Your task to perform on an android device: change the clock display to digital Image 0: 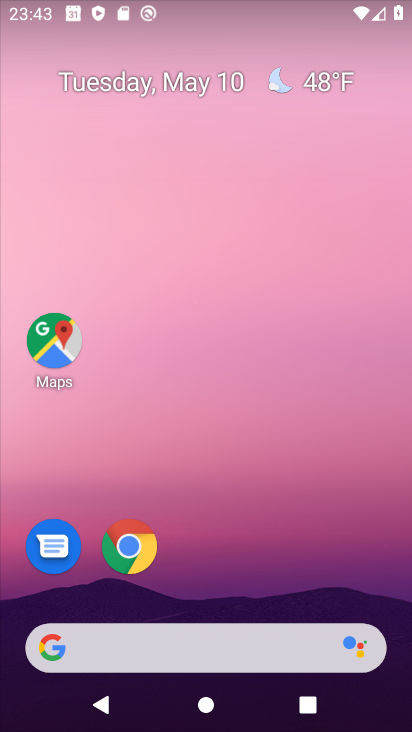
Step 0: drag from (212, 572) to (218, 193)
Your task to perform on an android device: change the clock display to digital Image 1: 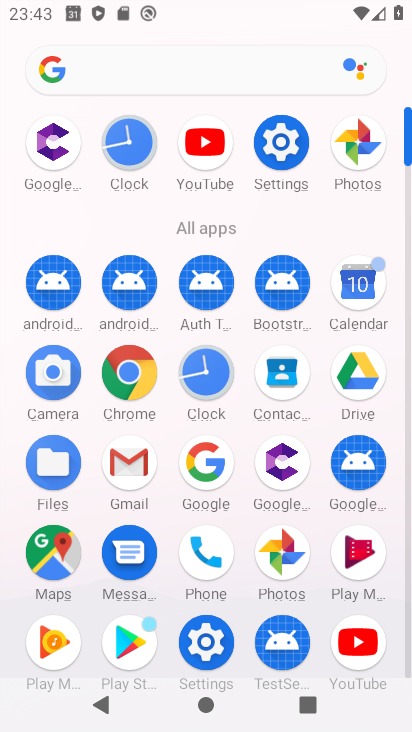
Step 1: click (117, 161)
Your task to perform on an android device: change the clock display to digital Image 2: 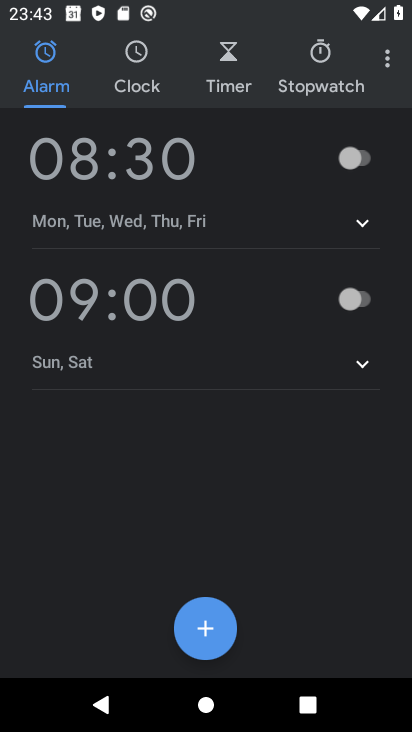
Step 2: click (382, 67)
Your task to perform on an android device: change the clock display to digital Image 3: 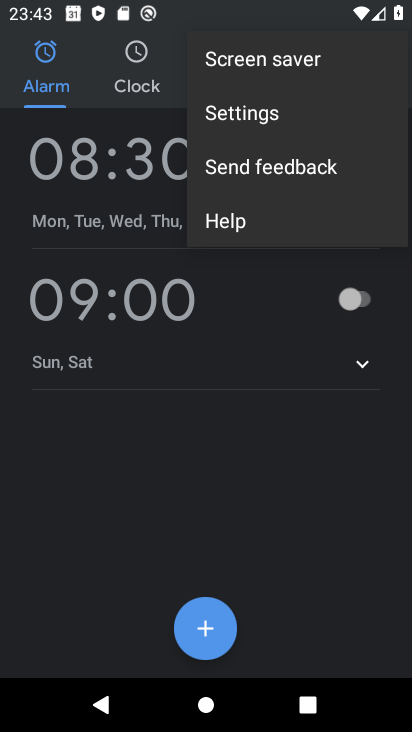
Step 3: click (299, 105)
Your task to perform on an android device: change the clock display to digital Image 4: 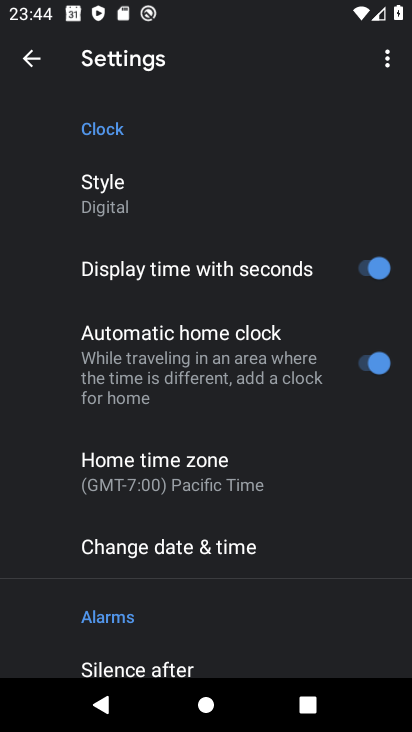
Step 4: click (188, 181)
Your task to perform on an android device: change the clock display to digital Image 5: 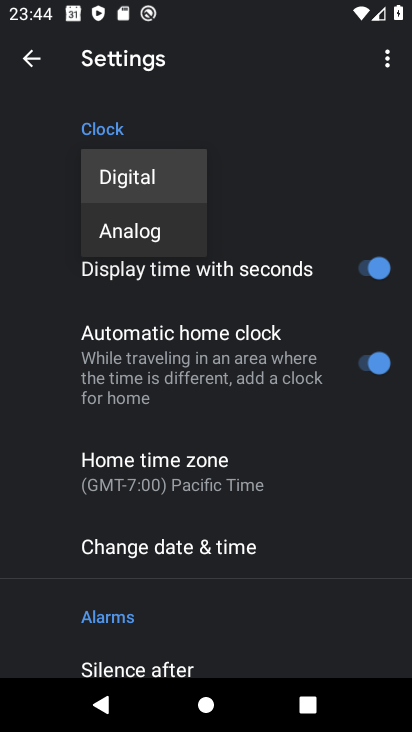
Step 5: task complete